Your task to perform on an android device: toggle data saver in the chrome app Image 0: 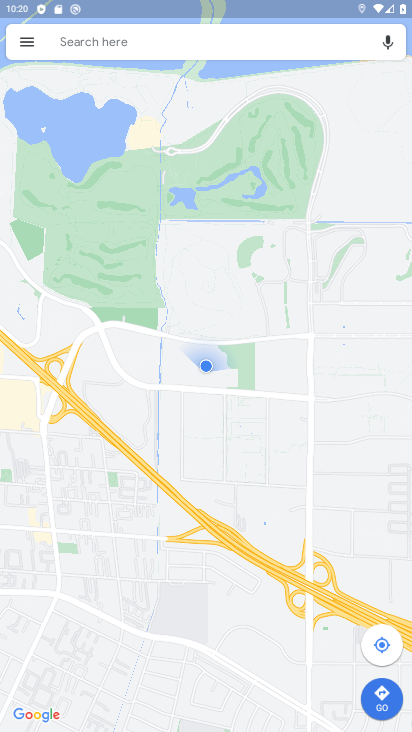
Step 0: press home button
Your task to perform on an android device: toggle data saver in the chrome app Image 1: 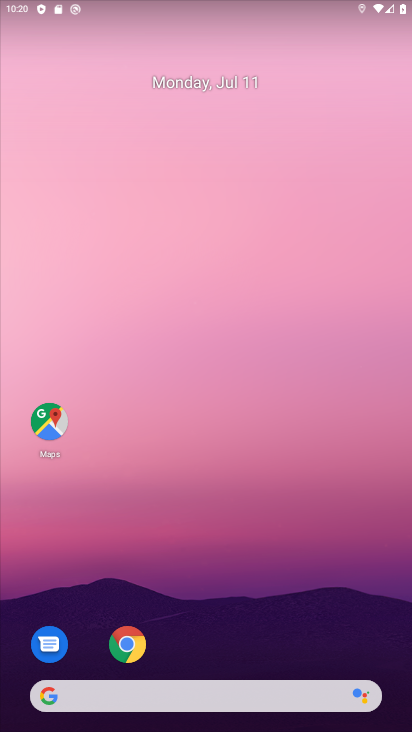
Step 1: click (128, 650)
Your task to perform on an android device: toggle data saver in the chrome app Image 2: 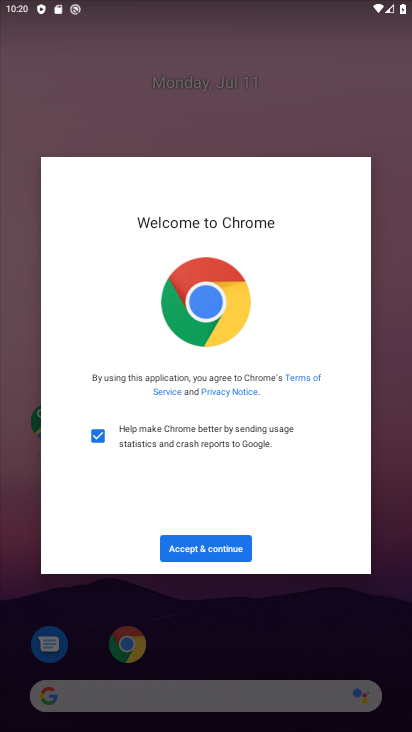
Step 2: click (219, 551)
Your task to perform on an android device: toggle data saver in the chrome app Image 3: 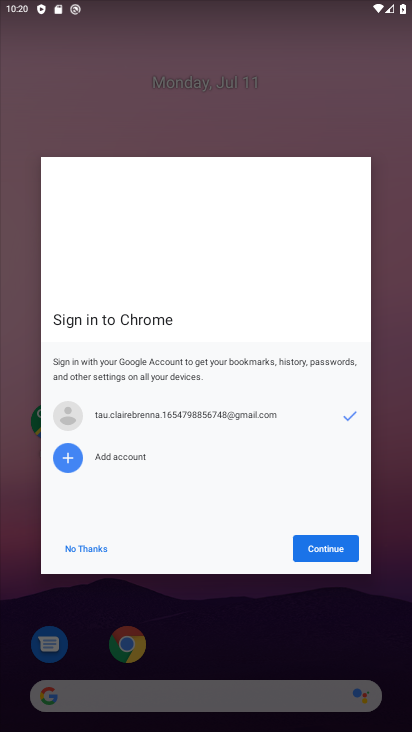
Step 3: click (311, 543)
Your task to perform on an android device: toggle data saver in the chrome app Image 4: 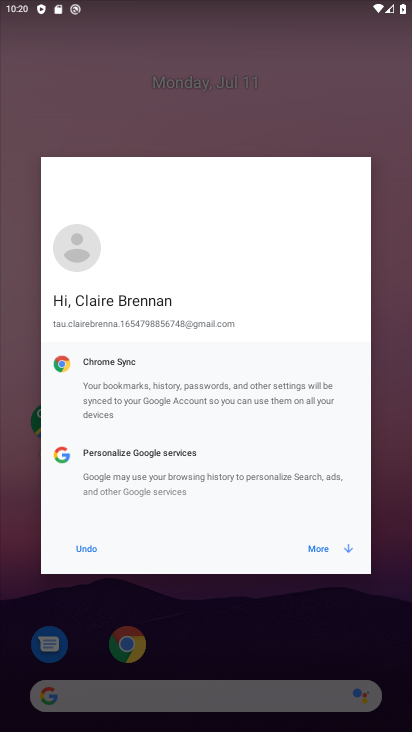
Step 4: click (328, 544)
Your task to perform on an android device: toggle data saver in the chrome app Image 5: 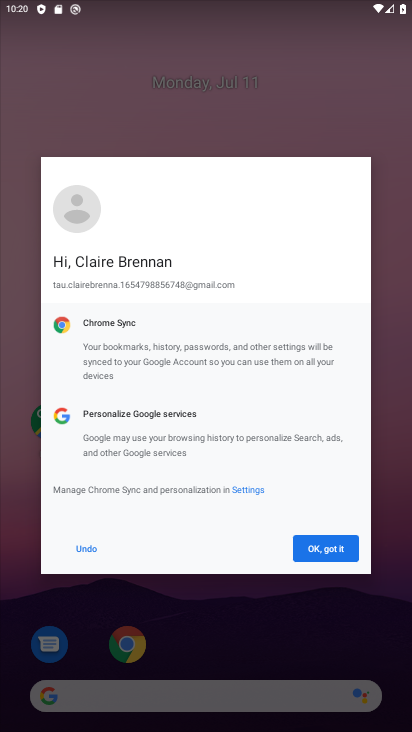
Step 5: click (334, 544)
Your task to perform on an android device: toggle data saver in the chrome app Image 6: 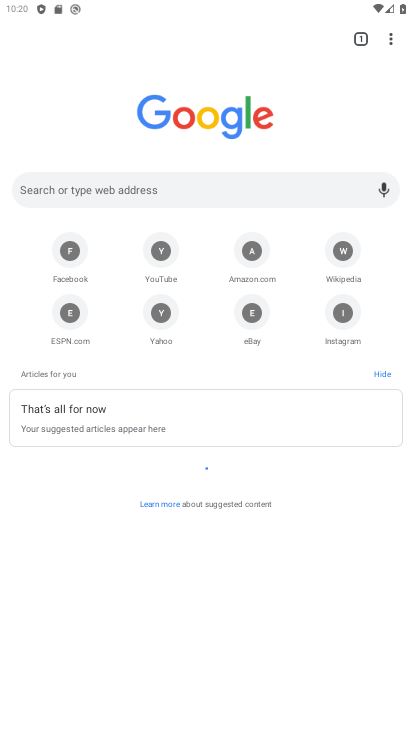
Step 6: drag from (396, 50) to (274, 333)
Your task to perform on an android device: toggle data saver in the chrome app Image 7: 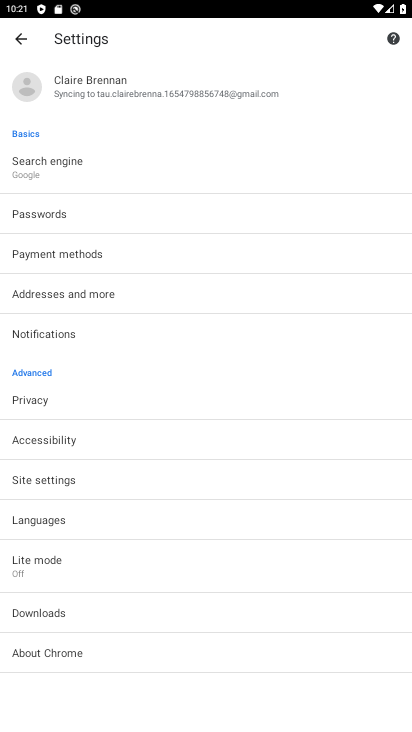
Step 7: click (82, 568)
Your task to perform on an android device: toggle data saver in the chrome app Image 8: 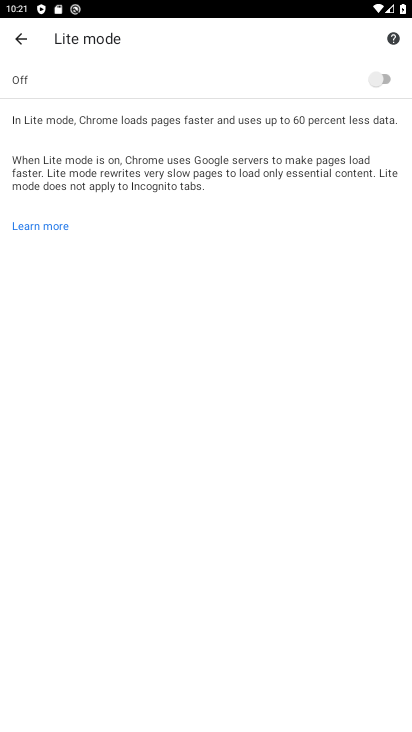
Step 8: click (401, 78)
Your task to perform on an android device: toggle data saver in the chrome app Image 9: 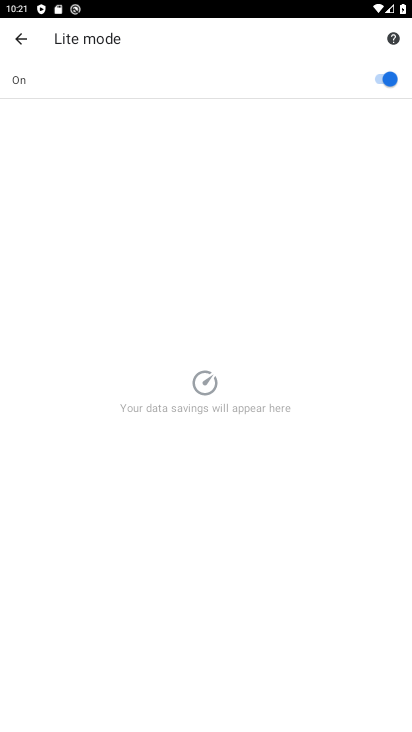
Step 9: task complete